Your task to perform on an android device: move an email to a new category in the gmail app Image 0: 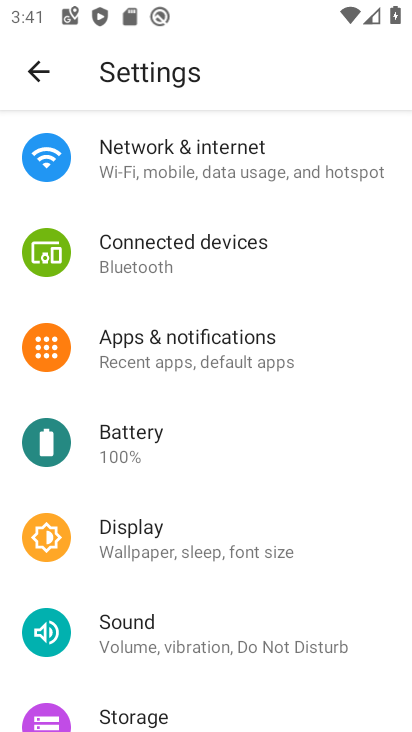
Step 0: press home button
Your task to perform on an android device: move an email to a new category in the gmail app Image 1: 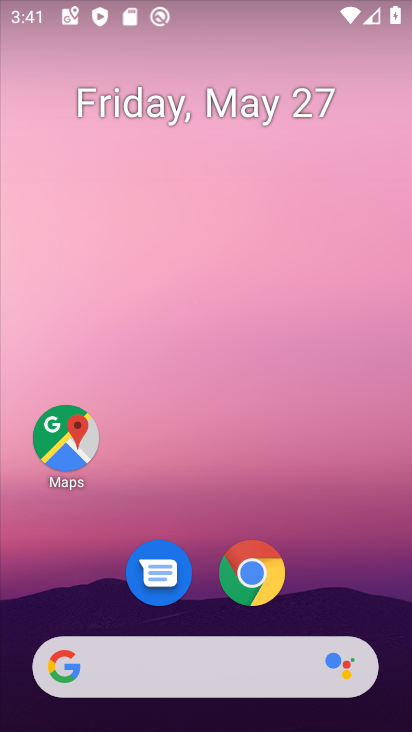
Step 1: drag from (295, 557) to (307, 39)
Your task to perform on an android device: move an email to a new category in the gmail app Image 2: 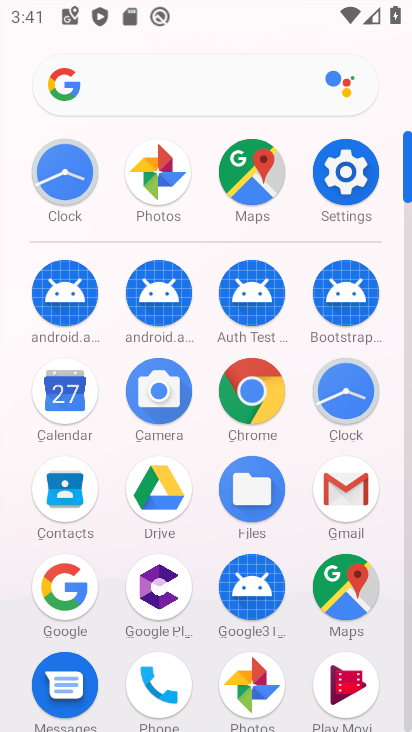
Step 2: click (345, 483)
Your task to perform on an android device: move an email to a new category in the gmail app Image 3: 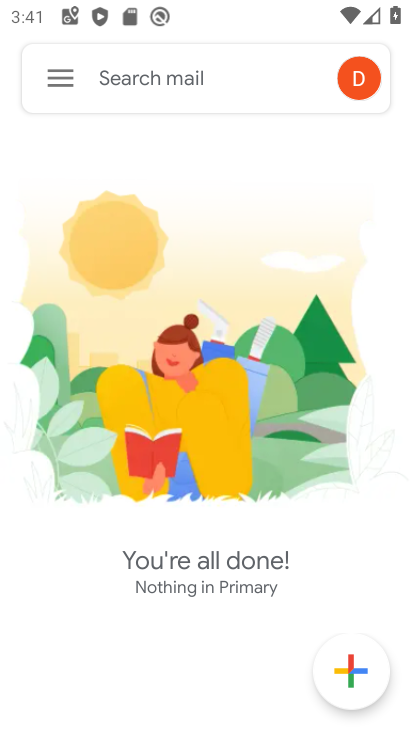
Step 3: click (65, 72)
Your task to perform on an android device: move an email to a new category in the gmail app Image 4: 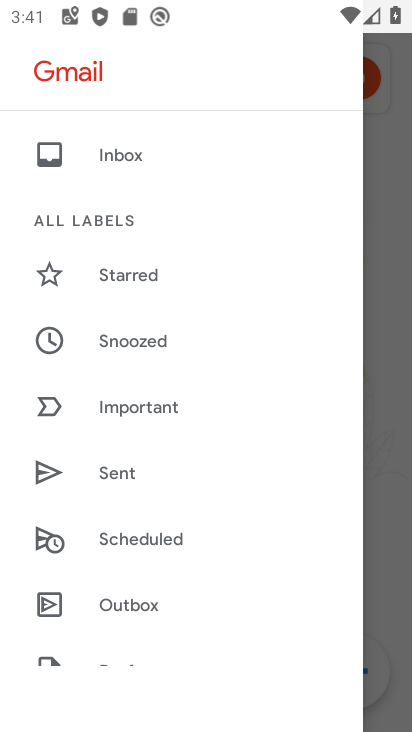
Step 4: drag from (224, 584) to (268, 51)
Your task to perform on an android device: move an email to a new category in the gmail app Image 5: 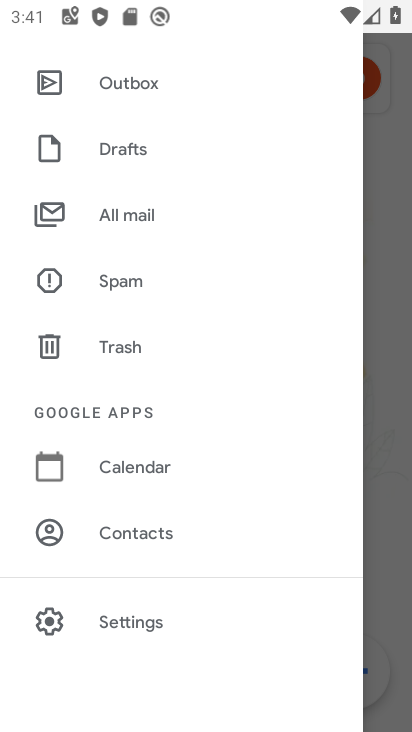
Step 5: click (186, 219)
Your task to perform on an android device: move an email to a new category in the gmail app Image 6: 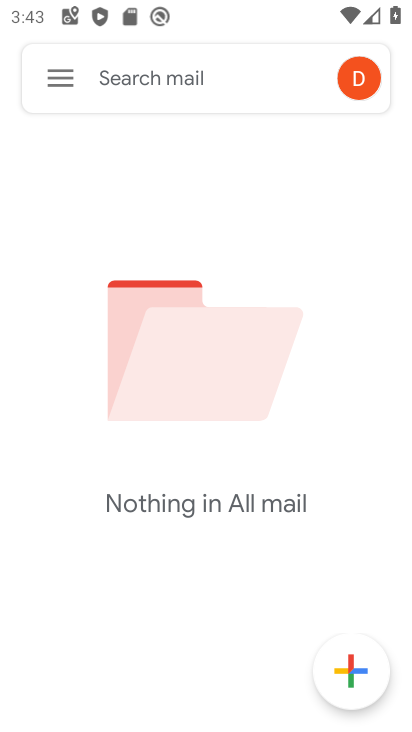
Step 6: task complete